Your task to perform on an android device: check android version Image 0: 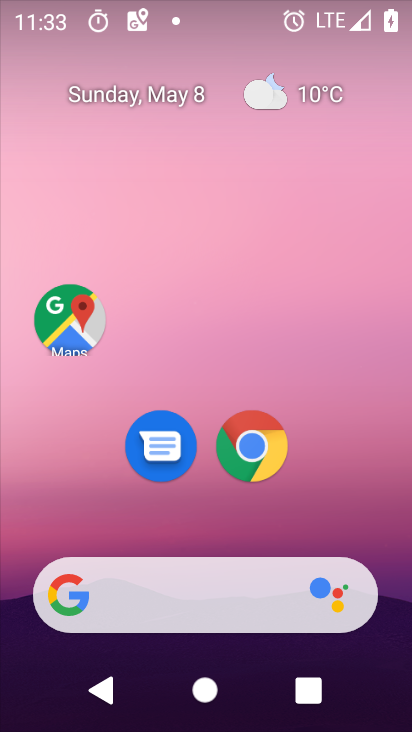
Step 0: drag from (344, 537) to (356, 21)
Your task to perform on an android device: check android version Image 1: 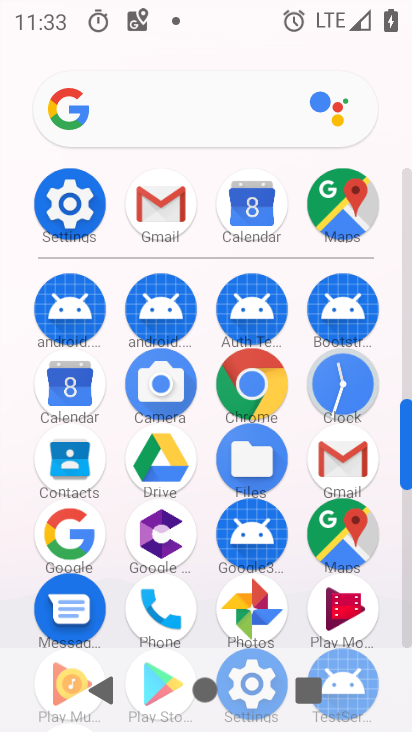
Step 1: click (71, 210)
Your task to perform on an android device: check android version Image 2: 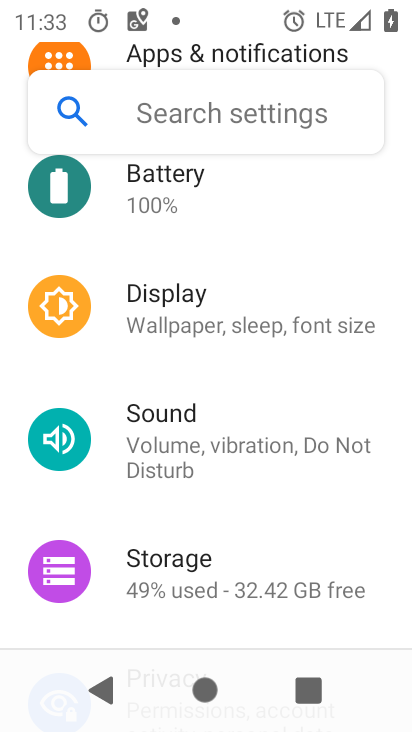
Step 2: drag from (376, 592) to (382, 143)
Your task to perform on an android device: check android version Image 3: 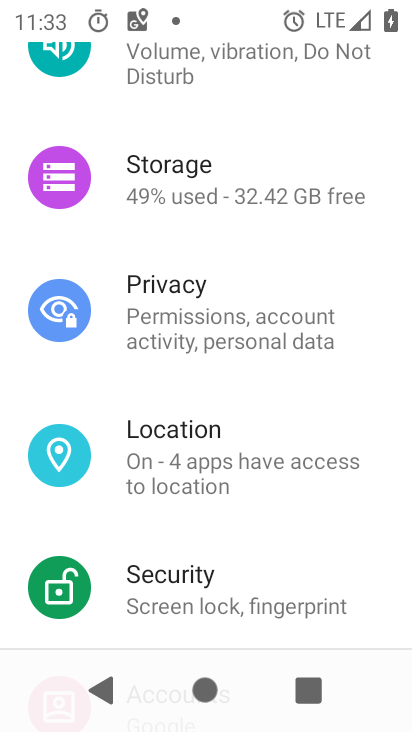
Step 3: drag from (364, 178) to (364, 112)
Your task to perform on an android device: check android version Image 4: 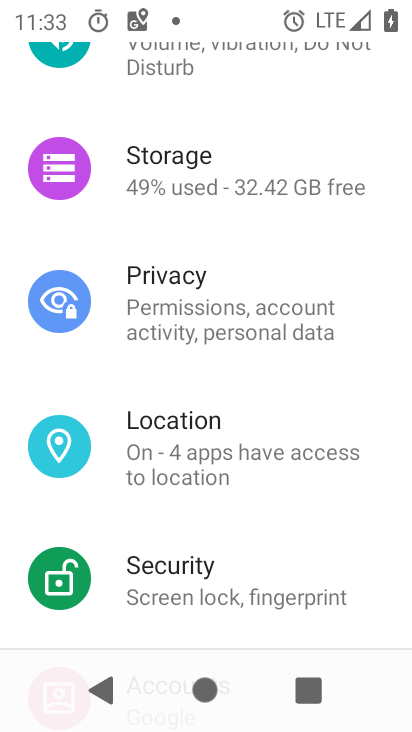
Step 4: drag from (327, 604) to (329, 132)
Your task to perform on an android device: check android version Image 5: 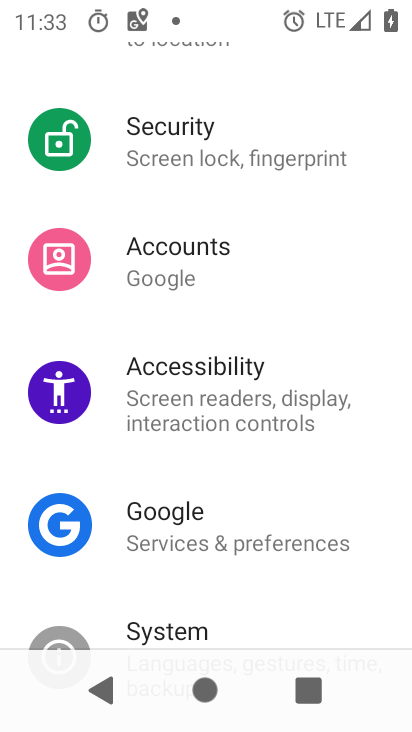
Step 5: drag from (323, 533) to (323, 151)
Your task to perform on an android device: check android version Image 6: 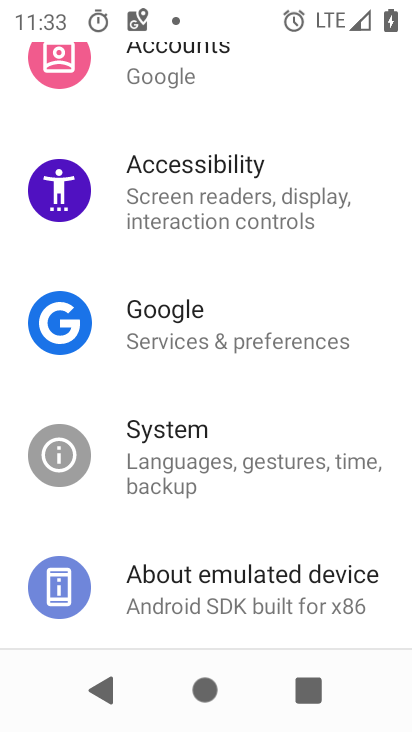
Step 6: drag from (354, 600) to (342, 264)
Your task to perform on an android device: check android version Image 7: 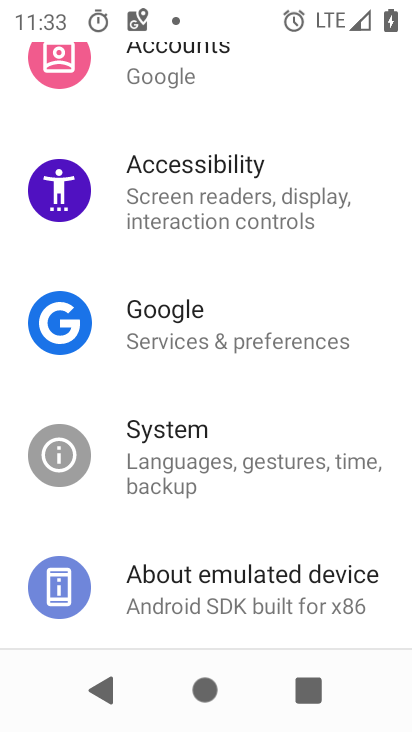
Step 7: click (235, 599)
Your task to perform on an android device: check android version Image 8: 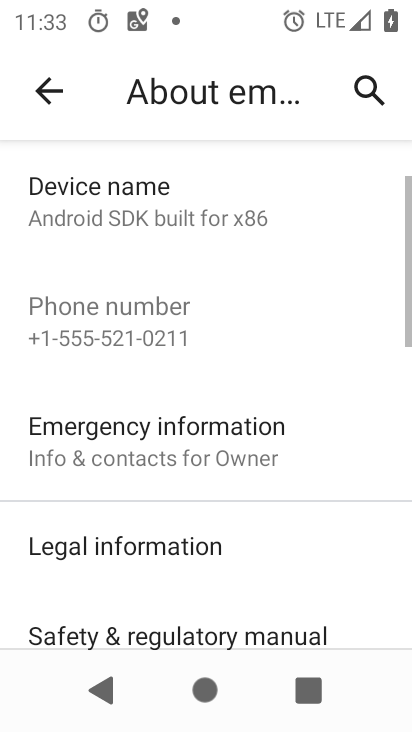
Step 8: drag from (294, 515) to (314, 176)
Your task to perform on an android device: check android version Image 9: 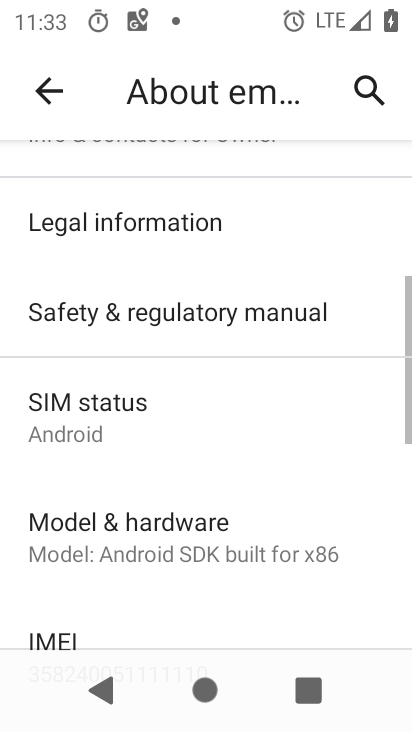
Step 9: drag from (270, 444) to (293, 191)
Your task to perform on an android device: check android version Image 10: 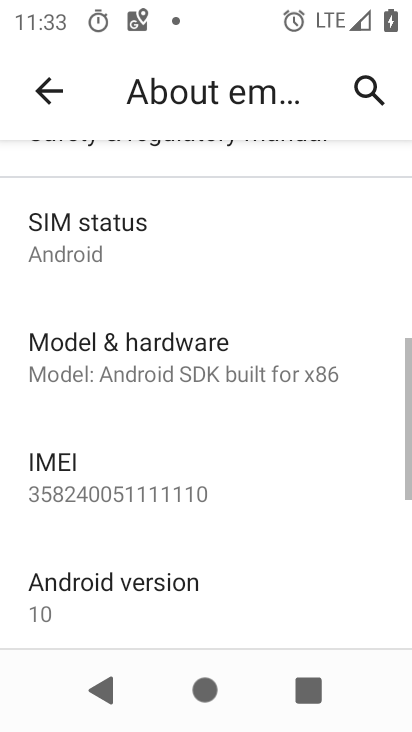
Step 10: click (146, 593)
Your task to perform on an android device: check android version Image 11: 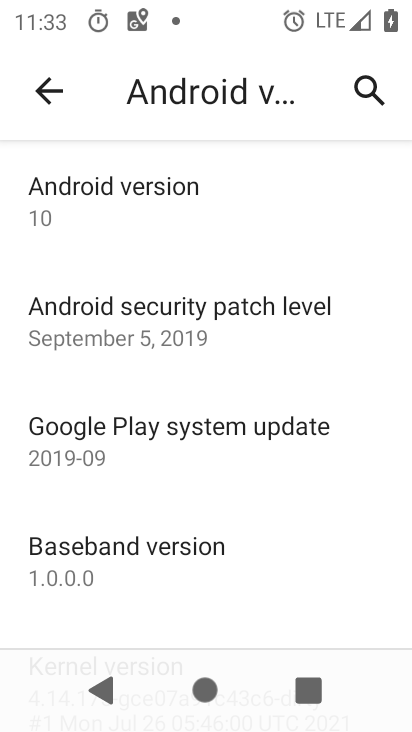
Step 11: task complete